Your task to perform on an android device: turn off data saver in the chrome app Image 0: 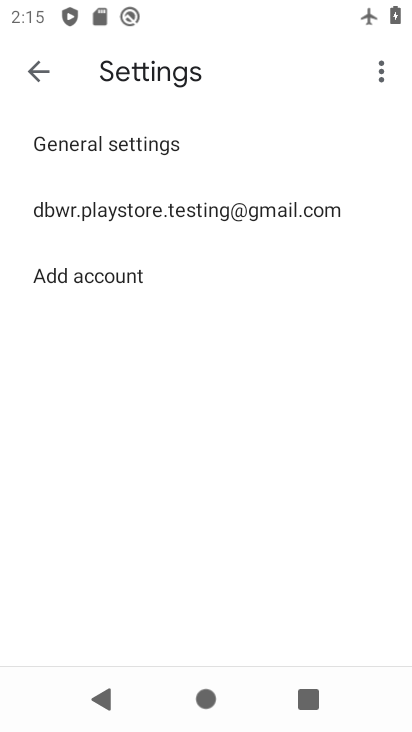
Step 0: press home button
Your task to perform on an android device: turn off data saver in the chrome app Image 1: 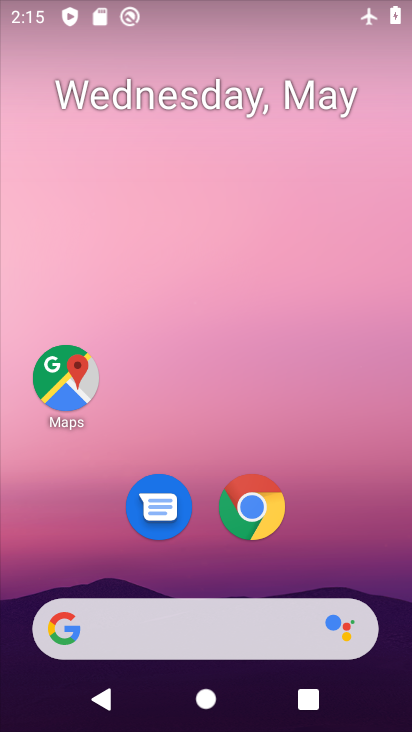
Step 1: drag from (384, 540) to (379, 174)
Your task to perform on an android device: turn off data saver in the chrome app Image 2: 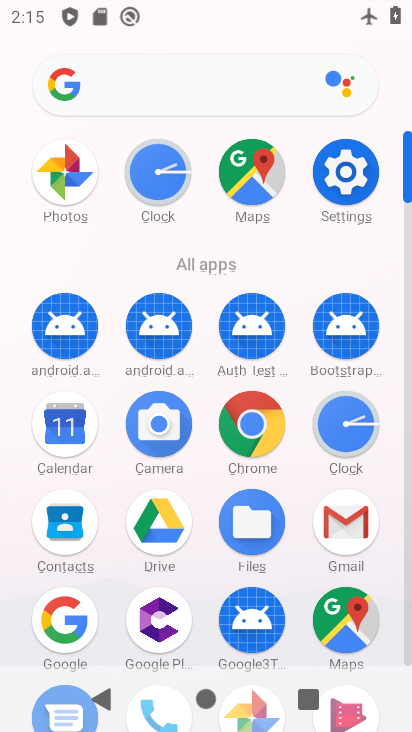
Step 2: click (271, 442)
Your task to perform on an android device: turn off data saver in the chrome app Image 3: 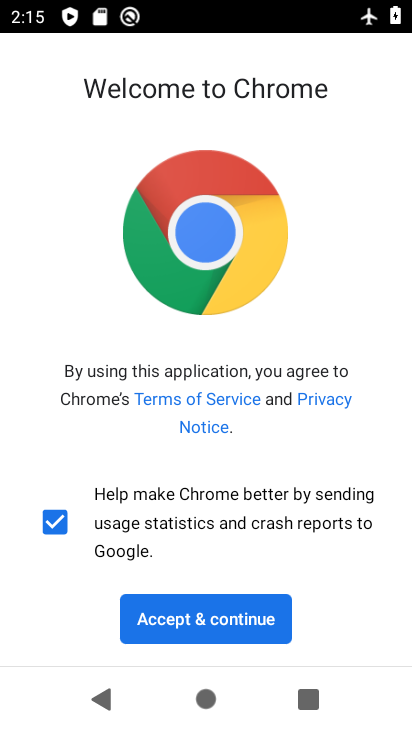
Step 3: click (242, 611)
Your task to perform on an android device: turn off data saver in the chrome app Image 4: 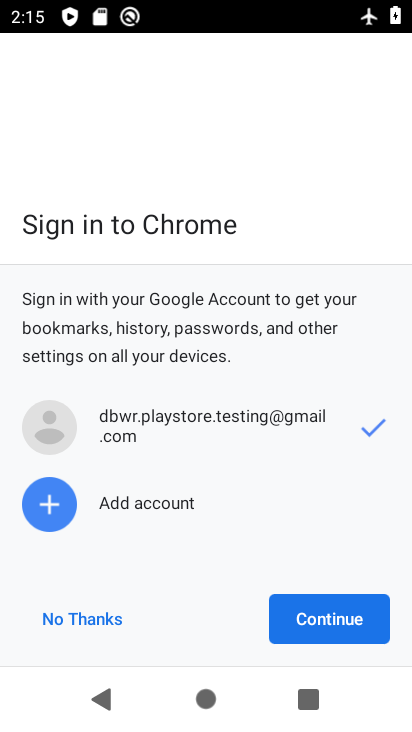
Step 4: click (339, 625)
Your task to perform on an android device: turn off data saver in the chrome app Image 5: 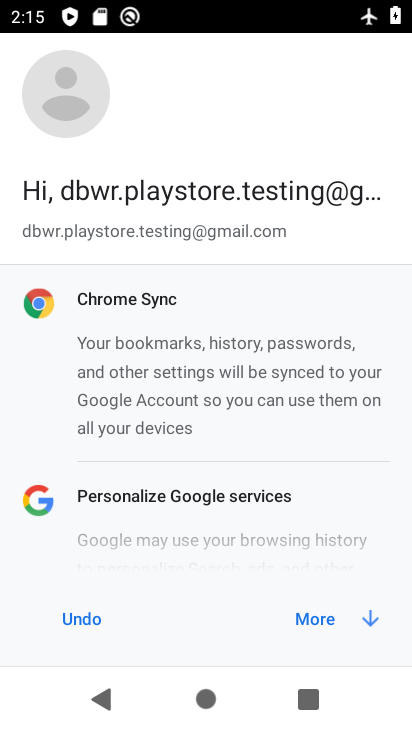
Step 5: click (340, 624)
Your task to perform on an android device: turn off data saver in the chrome app Image 6: 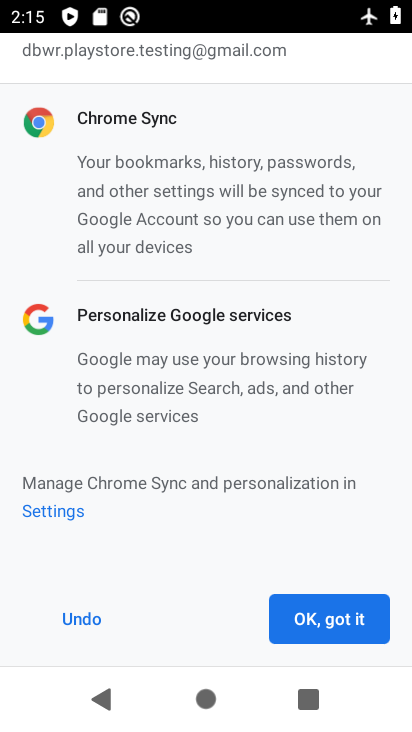
Step 6: click (340, 624)
Your task to perform on an android device: turn off data saver in the chrome app Image 7: 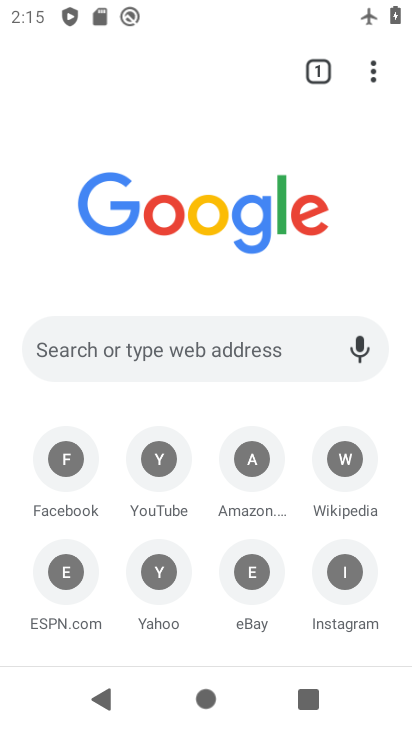
Step 7: drag from (373, 82) to (155, 502)
Your task to perform on an android device: turn off data saver in the chrome app Image 8: 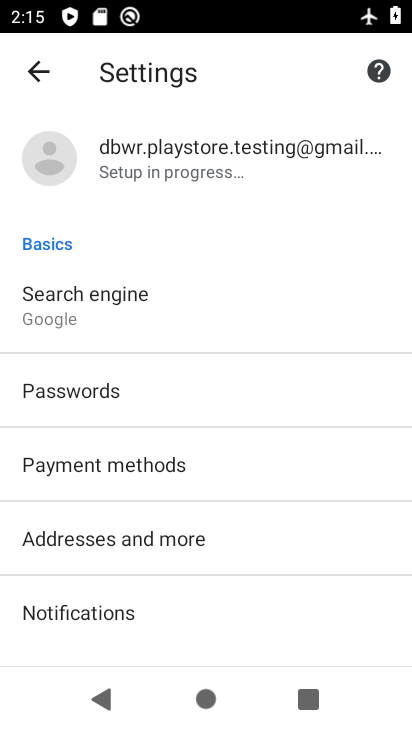
Step 8: drag from (233, 561) to (246, 268)
Your task to perform on an android device: turn off data saver in the chrome app Image 9: 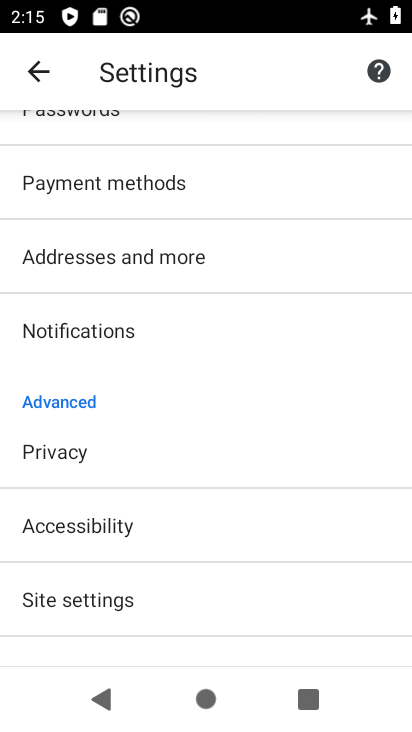
Step 9: drag from (209, 566) to (261, 262)
Your task to perform on an android device: turn off data saver in the chrome app Image 10: 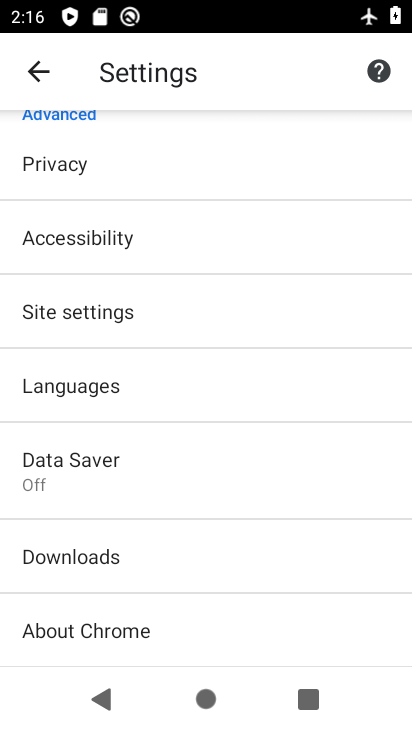
Step 10: click (117, 474)
Your task to perform on an android device: turn off data saver in the chrome app Image 11: 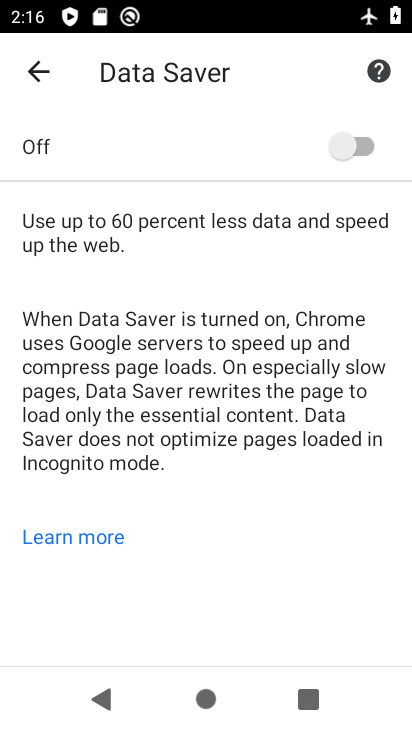
Step 11: task complete